Your task to perform on an android device: Open the phone app and click the voicemail tab. Image 0: 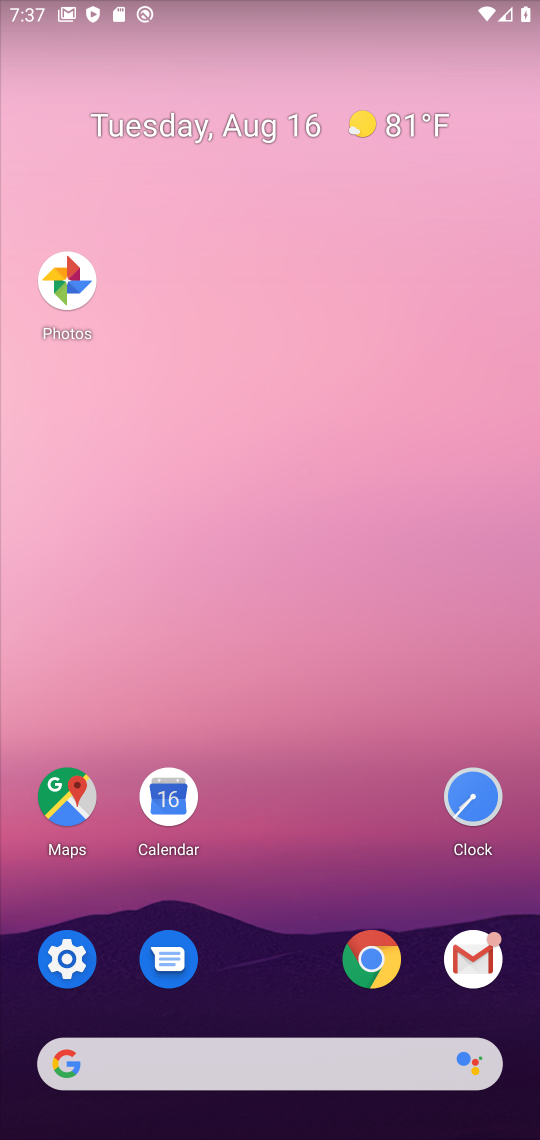
Step 0: drag from (277, 973) to (261, 351)
Your task to perform on an android device: Open the phone app and click the voicemail tab. Image 1: 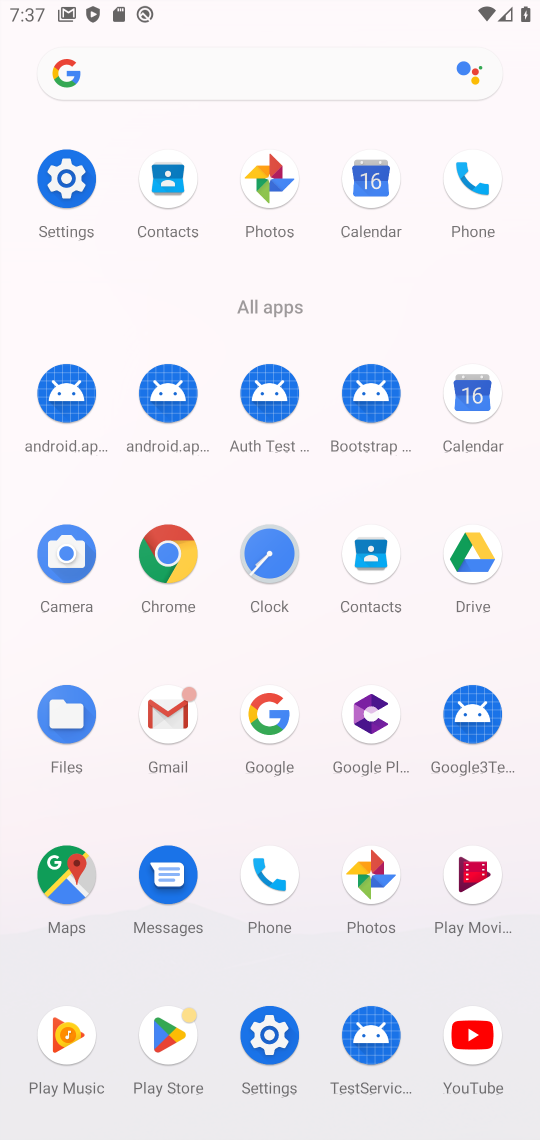
Step 1: click (463, 175)
Your task to perform on an android device: Open the phone app and click the voicemail tab. Image 2: 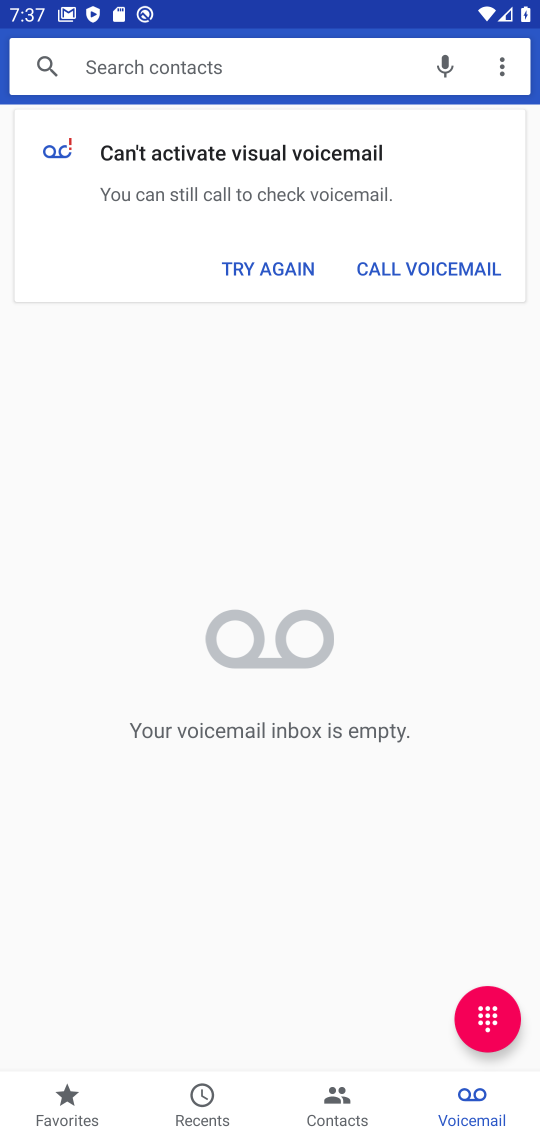
Step 2: click (472, 1109)
Your task to perform on an android device: Open the phone app and click the voicemail tab. Image 3: 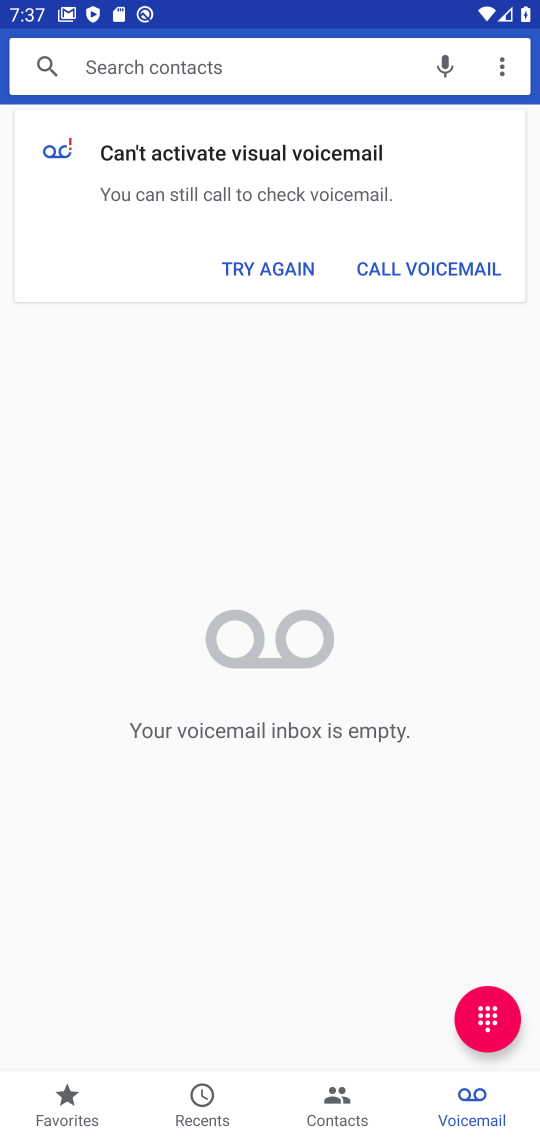
Step 3: task complete